Your task to perform on an android device: View the shopping cart on target.com. Search for apple airpods on target.com, select the first entry, and add it to the cart. Image 0: 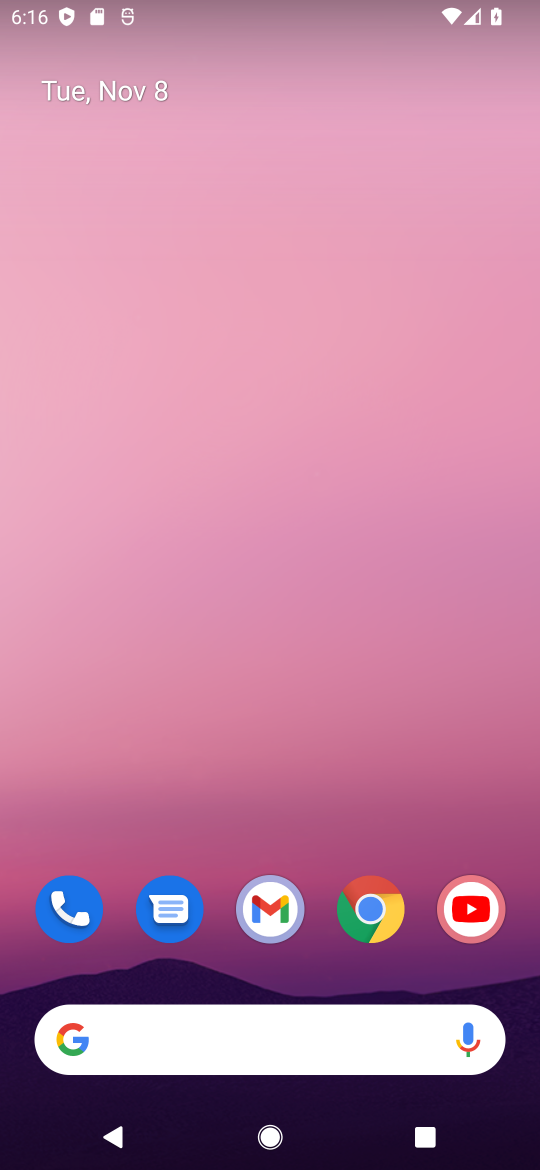
Step 0: click (368, 908)
Your task to perform on an android device: View the shopping cart on target.com. Search for apple airpods on target.com, select the first entry, and add it to the cart. Image 1: 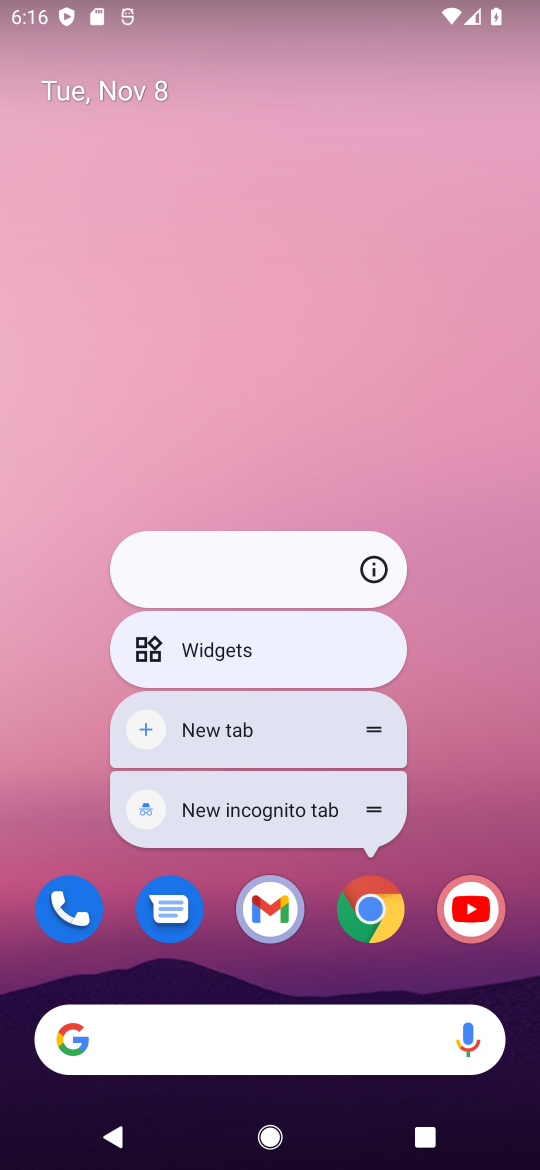
Step 1: click (375, 918)
Your task to perform on an android device: View the shopping cart on target.com. Search for apple airpods on target.com, select the first entry, and add it to the cart. Image 2: 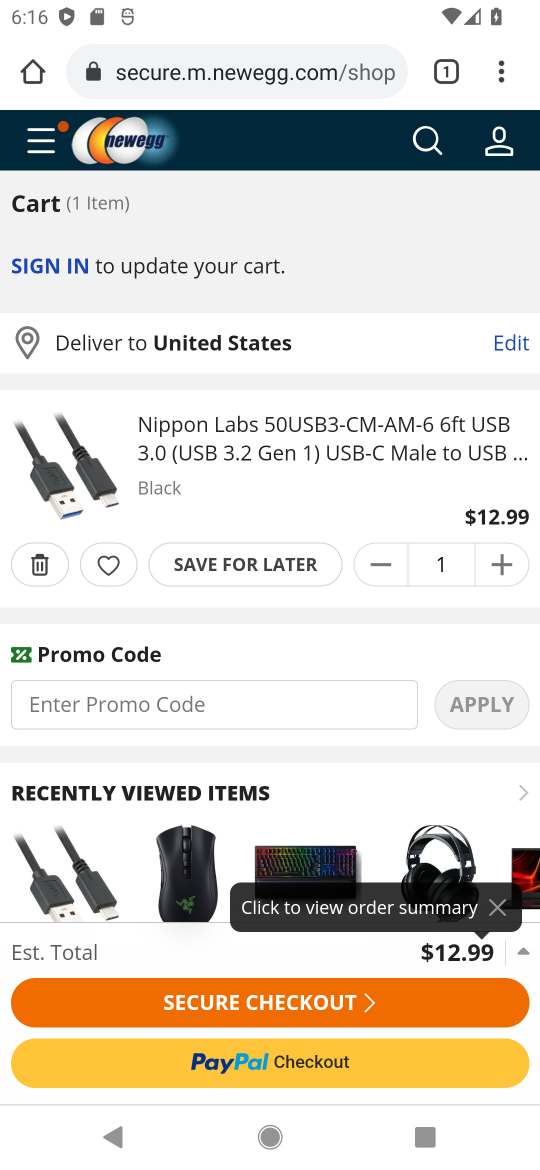
Step 2: press home button
Your task to perform on an android device: View the shopping cart on target.com. Search for apple airpods on target.com, select the first entry, and add it to the cart. Image 3: 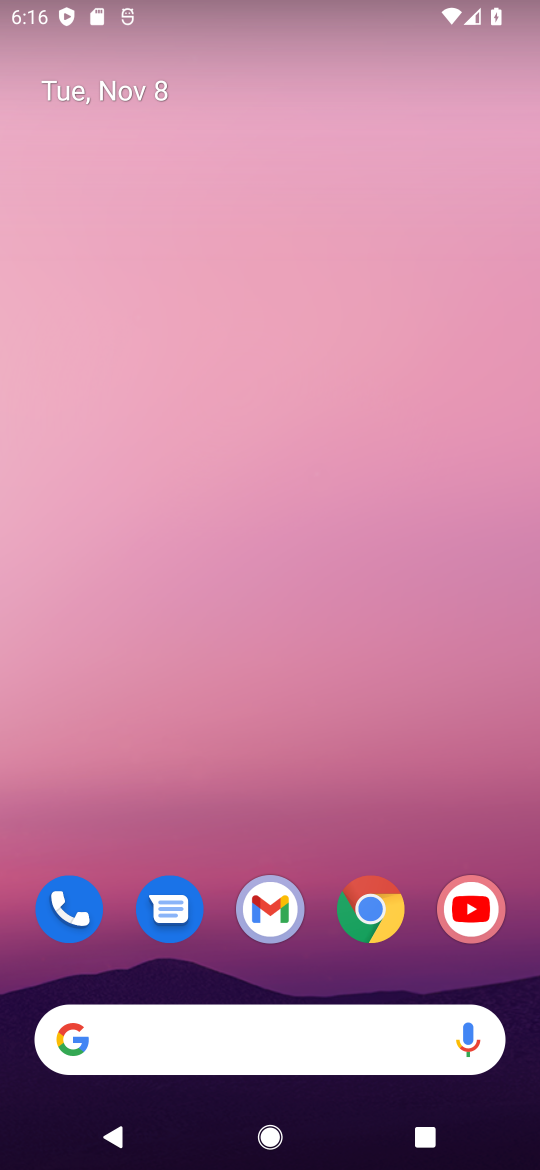
Step 3: click (366, 904)
Your task to perform on an android device: View the shopping cart on target.com. Search for apple airpods on target.com, select the first entry, and add it to the cart. Image 4: 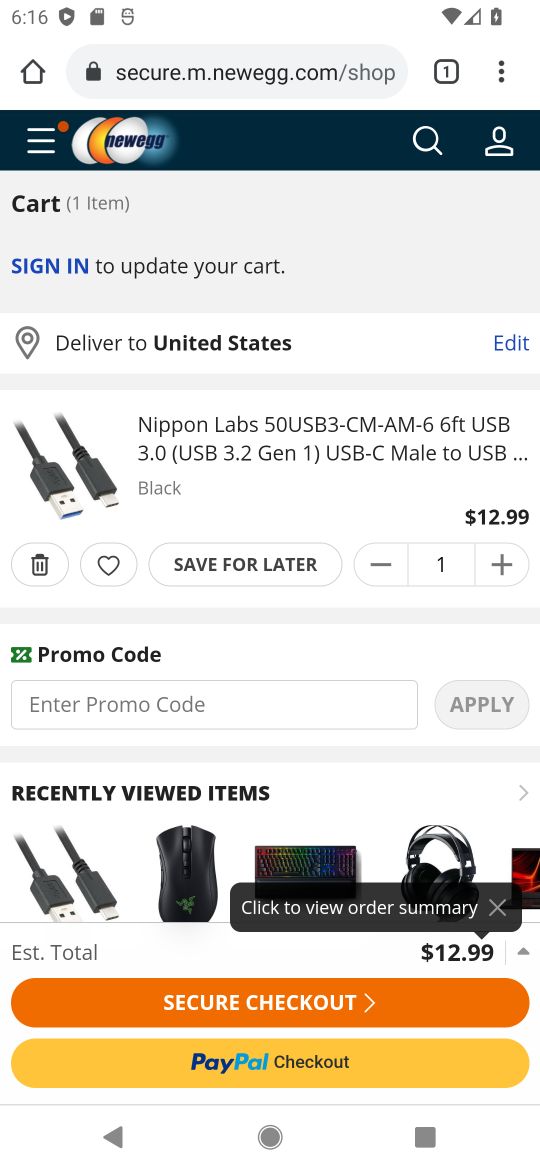
Step 4: click (297, 73)
Your task to perform on an android device: View the shopping cart on target.com. Search for apple airpods on target.com, select the first entry, and add it to the cart. Image 5: 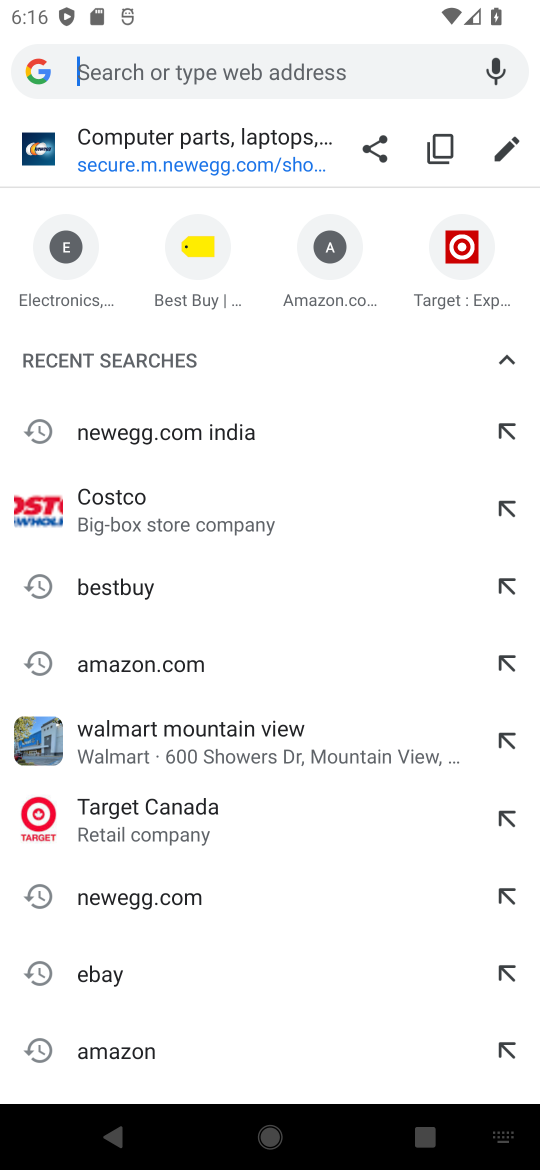
Step 5: click (466, 249)
Your task to perform on an android device: View the shopping cart on target.com. Search for apple airpods on target.com, select the first entry, and add it to the cart. Image 6: 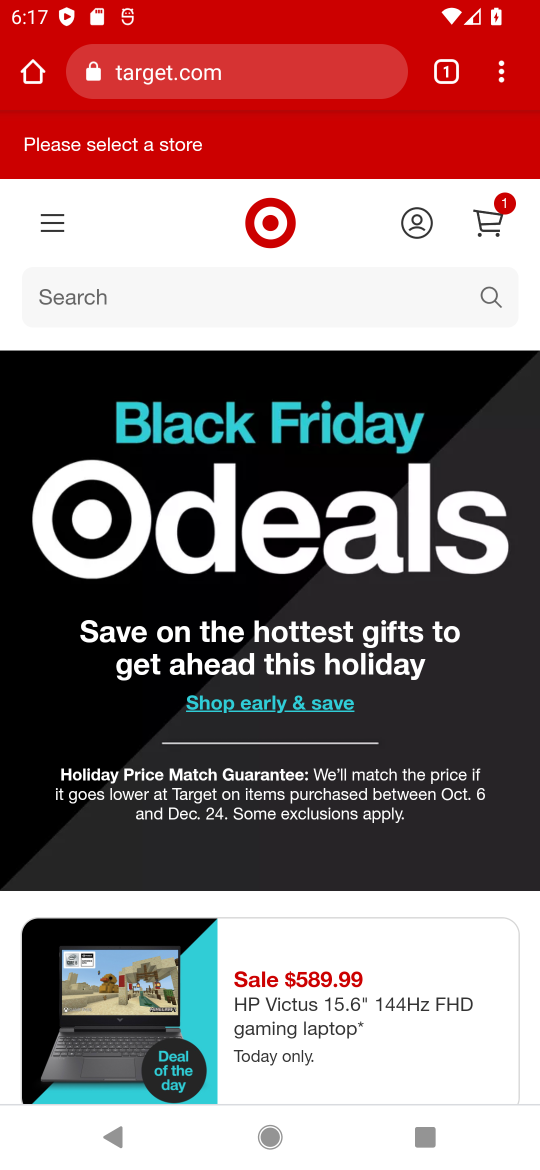
Step 6: click (152, 291)
Your task to perform on an android device: View the shopping cart on target.com. Search for apple airpods on target.com, select the first entry, and add it to the cart. Image 7: 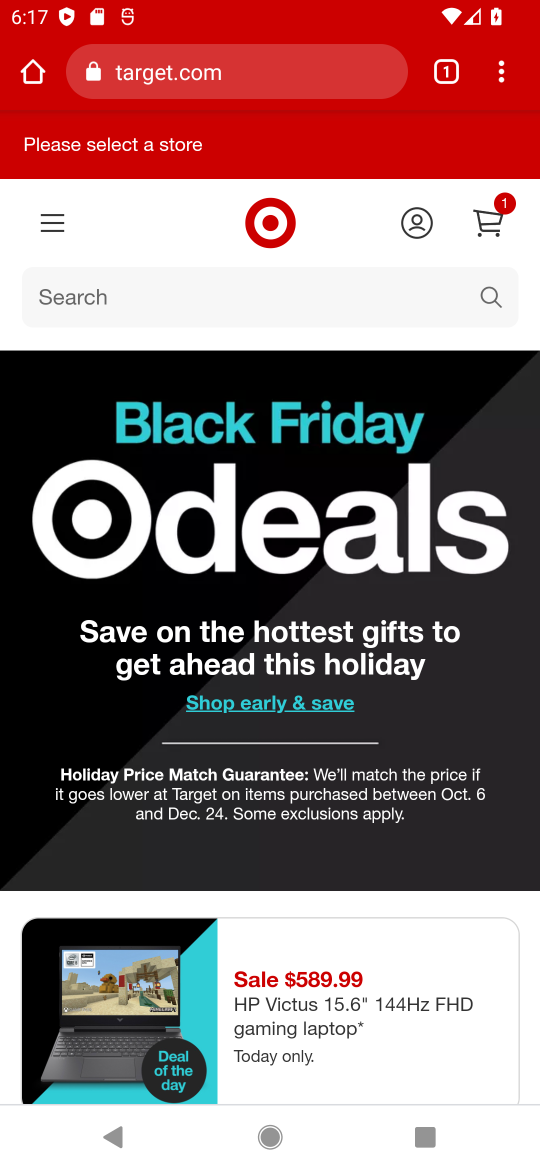
Step 7: click (71, 298)
Your task to perform on an android device: View the shopping cart on target.com. Search for apple airpods on target.com, select the first entry, and add it to the cart. Image 8: 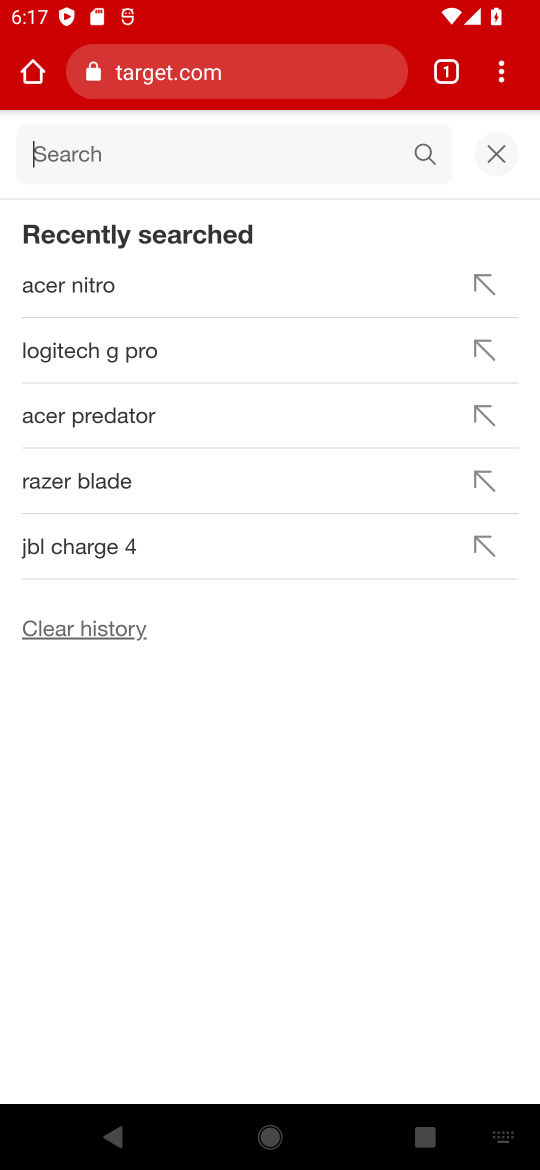
Step 8: type " apple airpods"
Your task to perform on an android device: View the shopping cart on target.com. Search for apple airpods on target.com, select the first entry, and add it to the cart. Image 9: 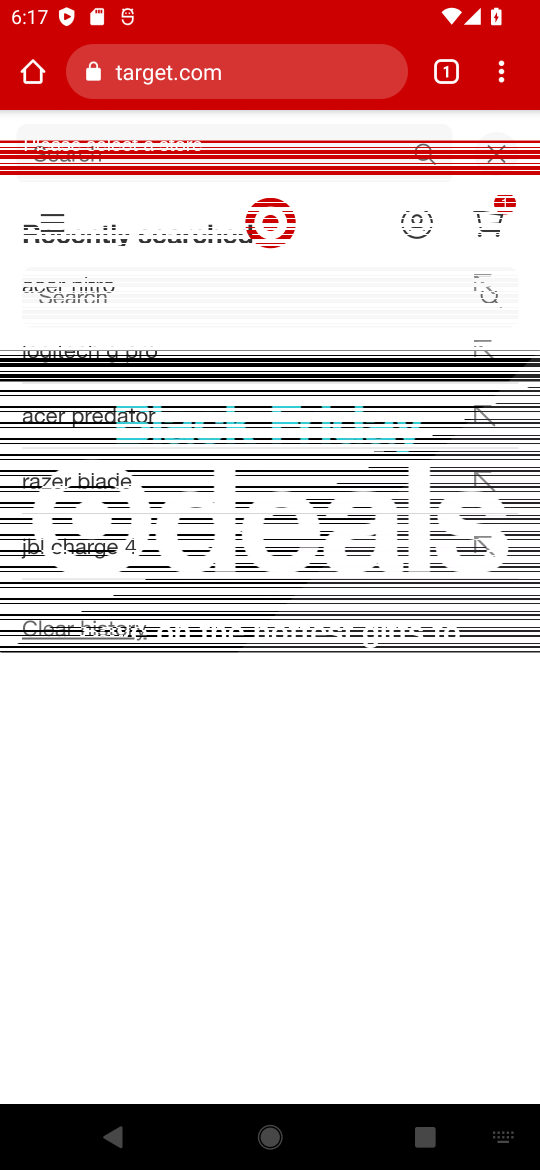
Step 9: press enter
Your task to perform on an android device: View the shopping cart on target.com. Search for apple airpods on target.com, select the first entry, and add it to the cart. Image 10: 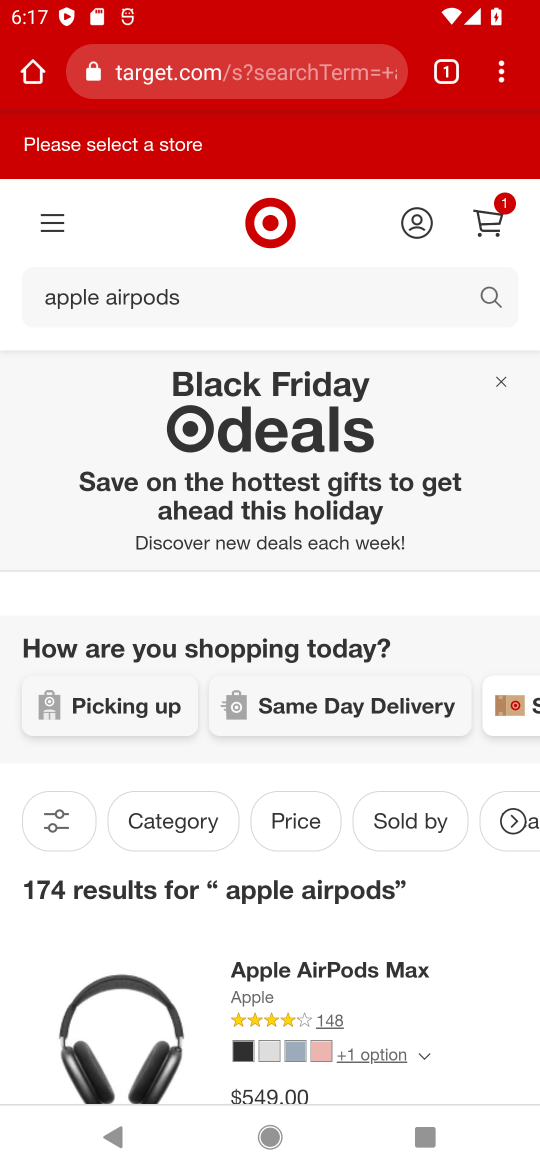
Step 10: drag from (157, 944) to (124, 428)
Your task to perform on an android device: View the shopping cart on target.com. Search for apple airpods on target.com, select the first entry, and add it to the cart. Image 11: 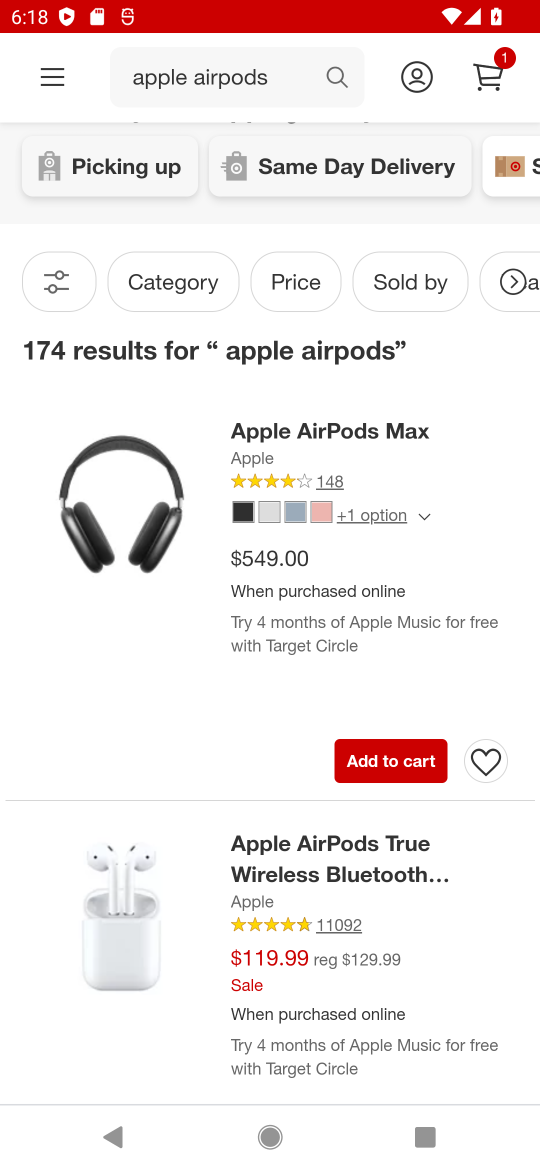
Step 11: click (378, 764)
Your task to perform on an android device: View the shopping cart on target.com. Search for apple airpods on target.com, select the first entry, and add it to the cart. Image 12: 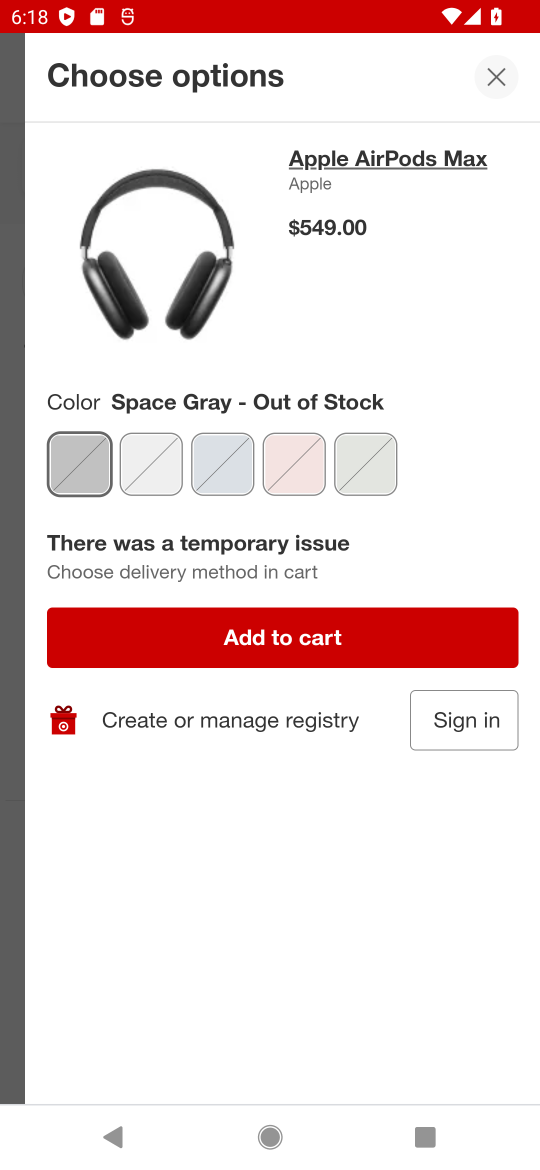
Step 12: click (285, 637)
Your task to perform on an android device: View the shopping cart on target.com. Search for apple airpods on target.com, select the first entry, and add it to the cart. Image 13: 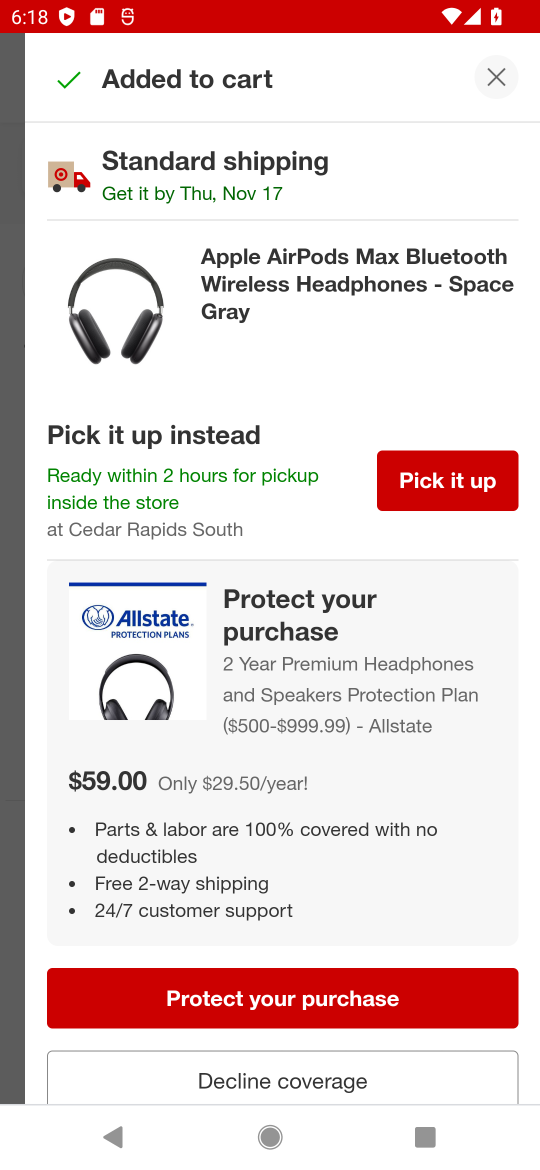
Step 13: click (486, 81)
Your task to perform on an android device: View the shopping cart on target.com. Search for apple airpods on target.com, select the first entry, and add it to the cart. Image 14: 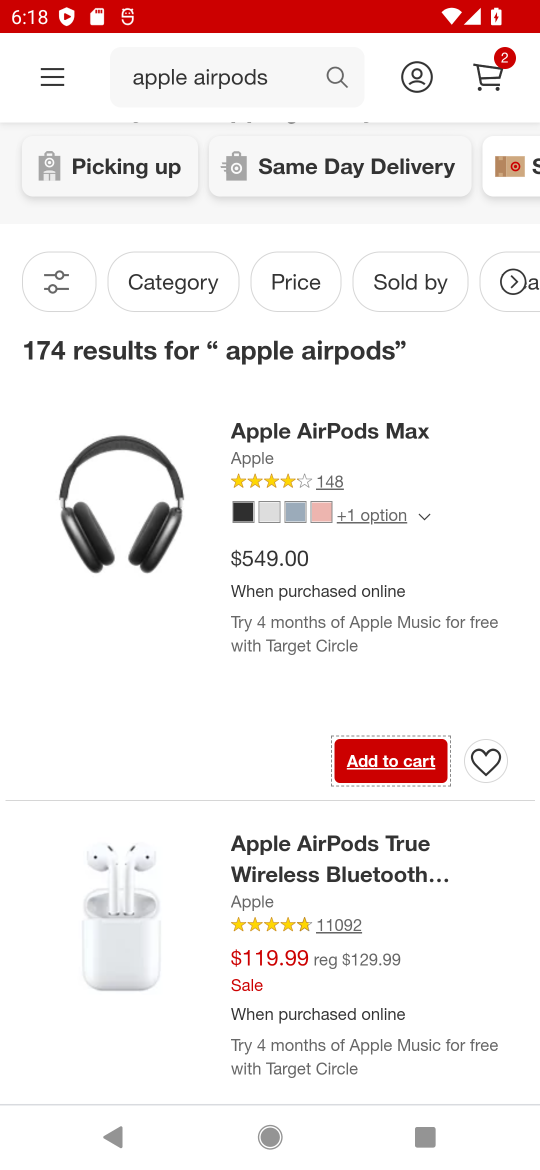
Step 14: click (500, 70)
Your task to perform on an android device: View the shopping cart on target.com. Search for apple airpods on target.com, select the first entry, and add it to the cart. Image 15: 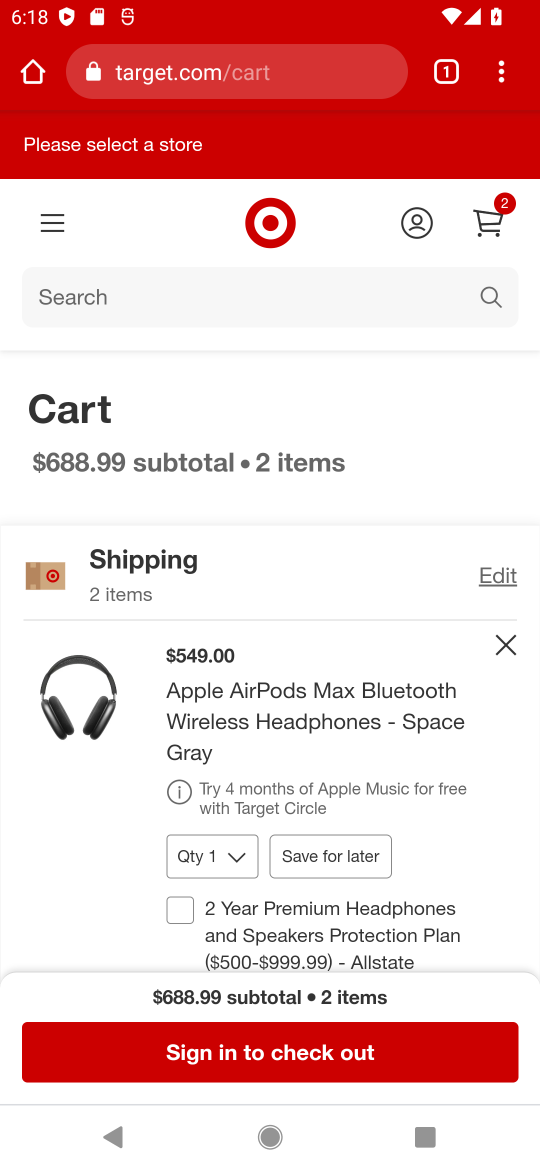
Step 15: drag from (111, 885) to (207, 454)
Your task to perform on an android device: View the shopping cart on target.com. Search for apple airpods on target.com, select the first entry, and add it to the cart. Image 16: 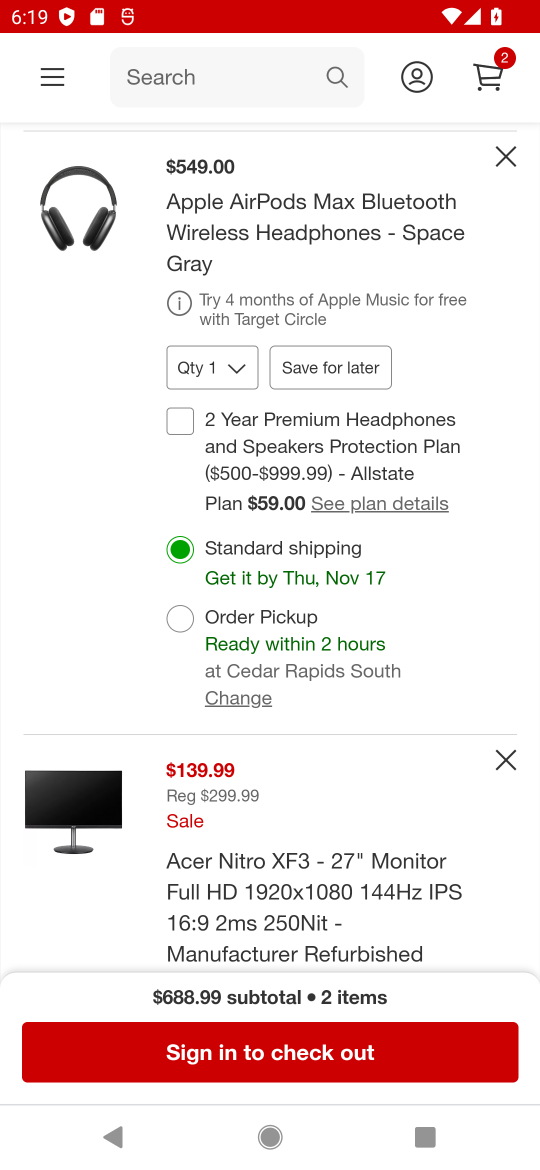
Step 16: click (506, 754)
Your task to perform on an android device: View the shopping cart on target.com. Search for apple airpods on target.com, select the first entry, and add it to the cart. Image 17: 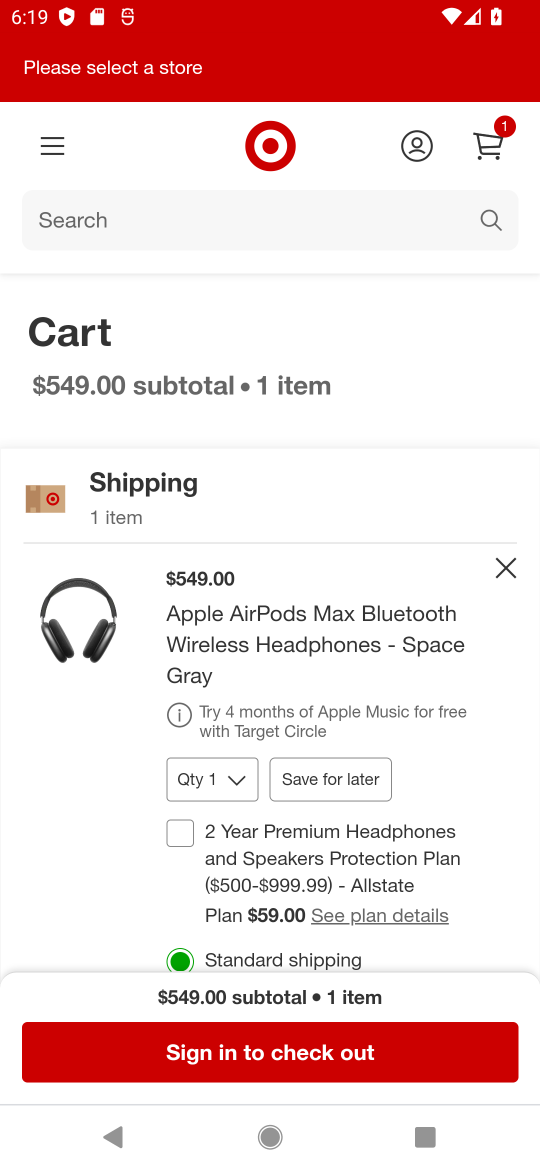
Step 17: task complete